Your task to perform on an android device: turn smart compose on in the gmail app Image 0: 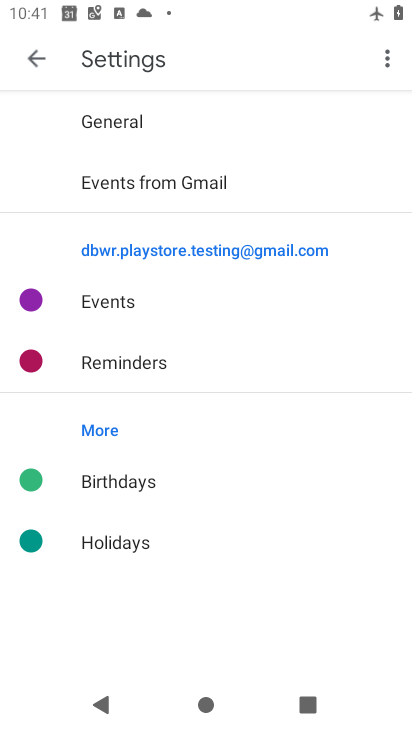
Step 0: press home button
Your task to perform on an android device: turn smart compose on in the gmail app Image 1: 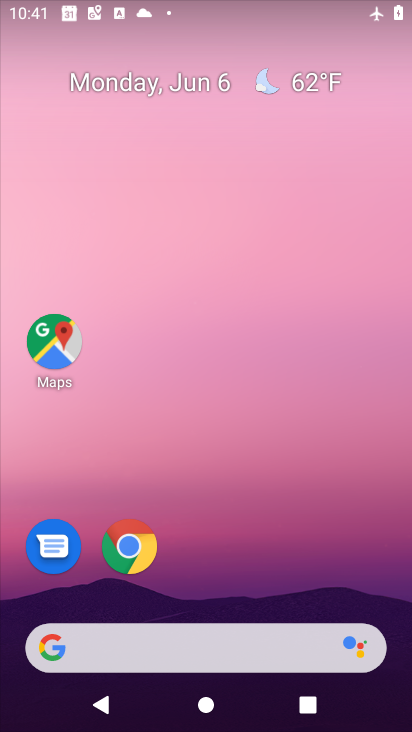
Step 1: drag from (362, 575) to (395, 93)
Your task to perform on an android device: turn smart compose on in the gmail app Image 2: 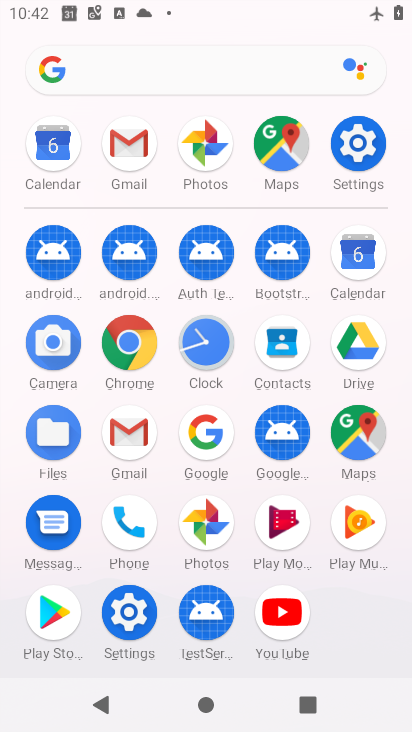
Step 2: click (130, 435)
Your task to perform on an android device: turn smart compose on in the gmail app Image 3: 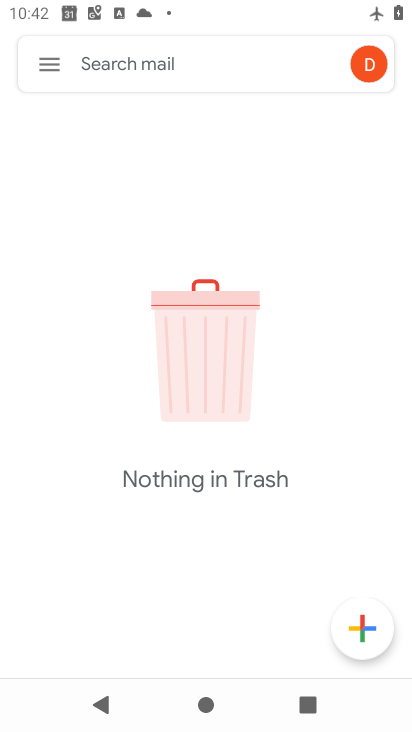
Step 3: click (55, 62)
Your task to perform on an android device: turn smart compose on in the gmail app Image 4: 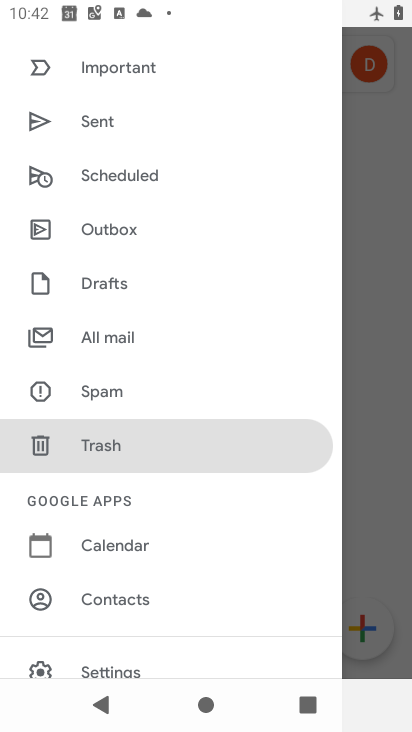
Step 4: drag from (193, 601) to (212, 199)
Your task to perform on an android device: turn smart compose on in the gmail app Image 5: 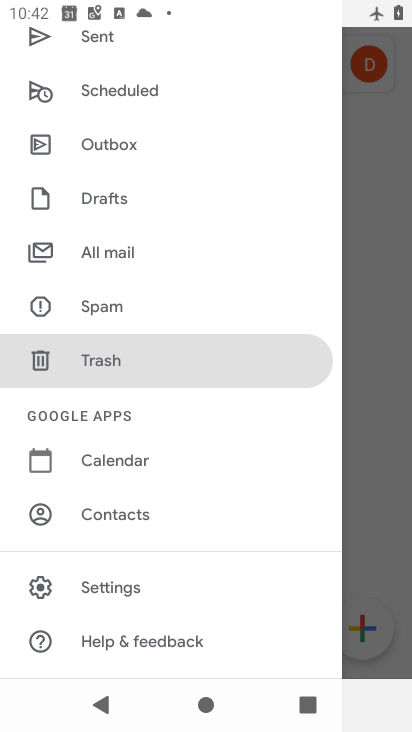
Step 5: click (100, 572)
Your task to perform on an android device: turn smart compose on in the gmail app Image 6: 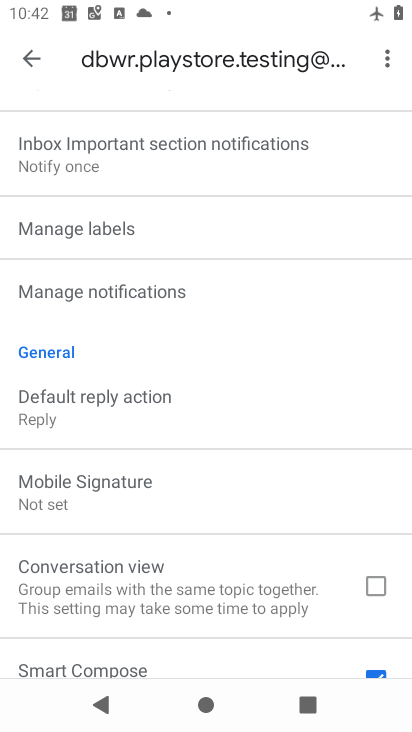
Step 6: task complete